Your task to perform on an android device: Go to Yahoo.com Image 0: 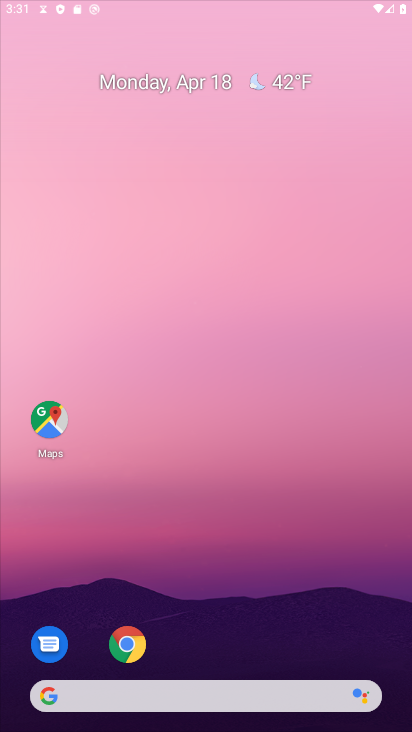
Step 0: click (222, 89)
Your task to perform on an android device: Go to Yahoo.com Image 1: 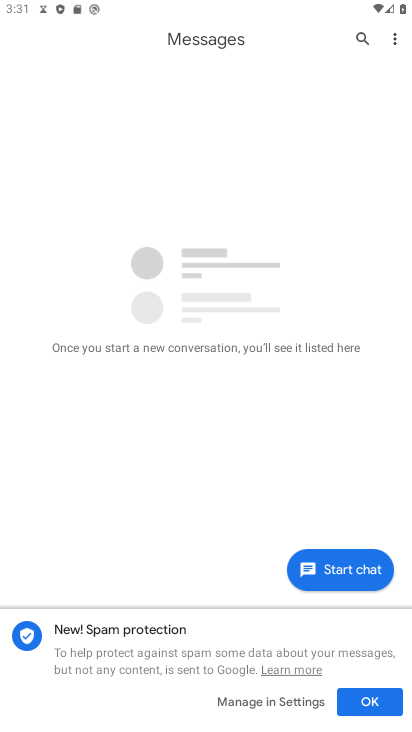
Step 1: press home button
Your task to perform on an android device: Go to Yahoo.com Image 2: 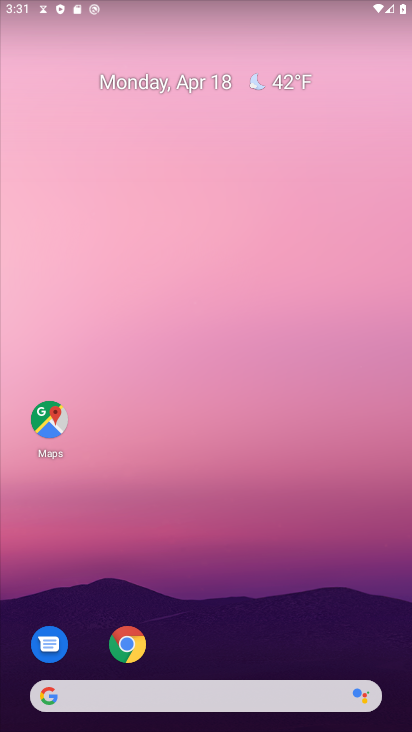
Step 2: click (131, 637)
Your task to perform on an android device: Go to Yahoo.com Image 3: 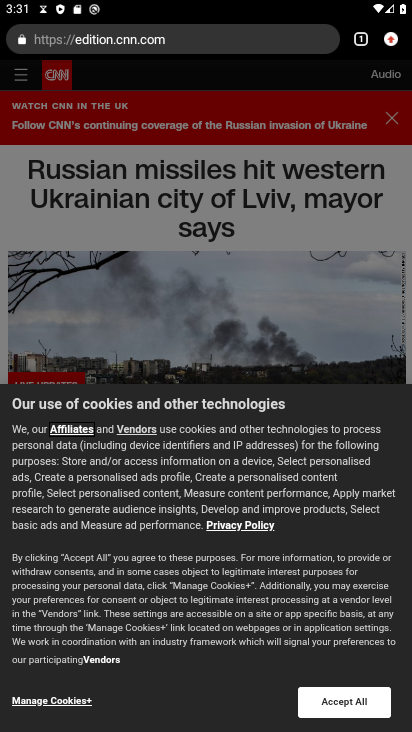
Step 3: click (365, 40)
Your task to perform on an android device: Go to Yahoo.com Image 4: 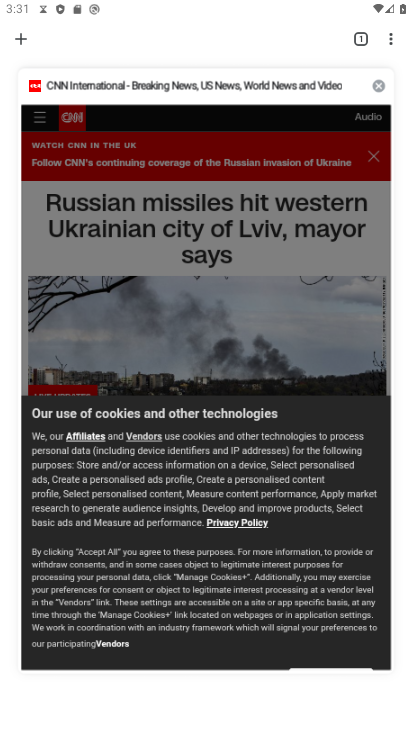
Step 4: click (14, 37)
Your task to perform on an android device: Go to Yahoo.com Image 5: 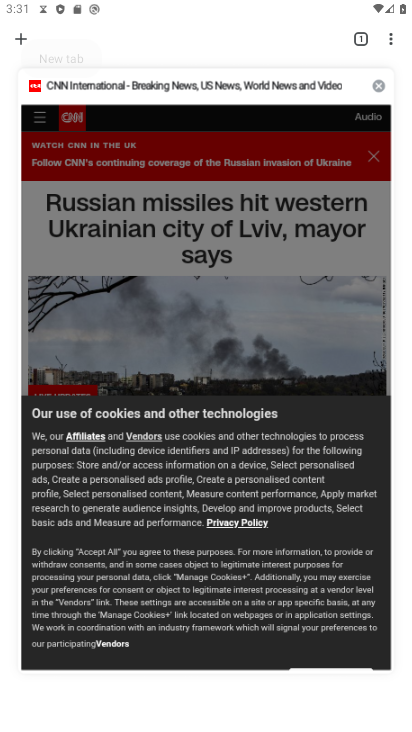
Step 5: click (49, 46)
Your task to perform on an android device: Go to Yahoo.com Image 6: 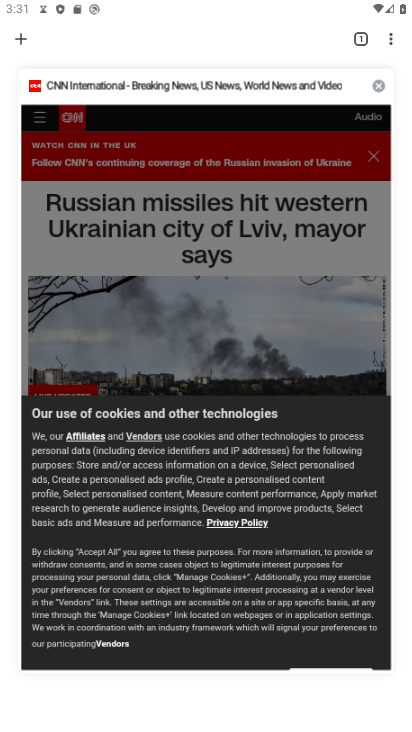
Step 6: click (22, 33)
Your task to perform on an android device: Go to Yahoo.com Image 7: 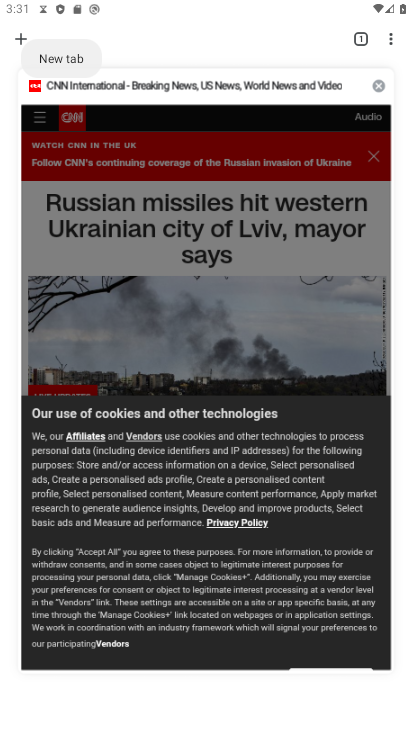
Step 7: click (22, 33)
Your task to perform on an android device: Go to Yahoo.com Image 8: 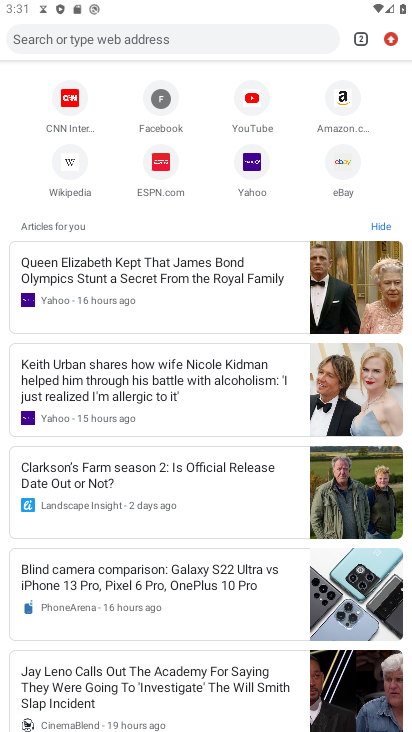
Step 8: click (252, 162)
Your task to perform on an android device: Go to Yahoo.com Image 9: 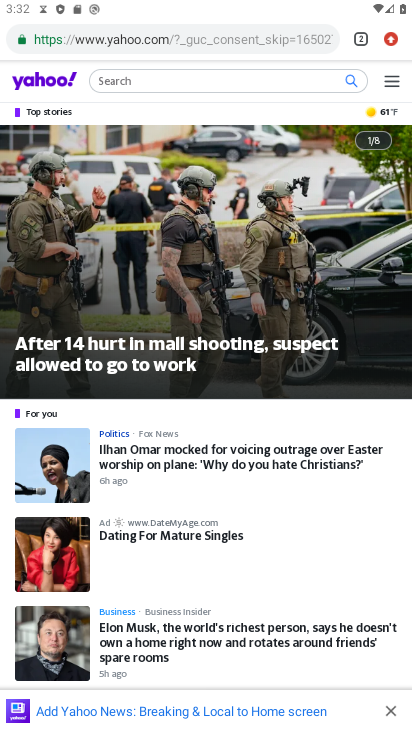
Step 9: task complete